Your task to perform on an android device: Open Chrome and go to the settings page Image 0: 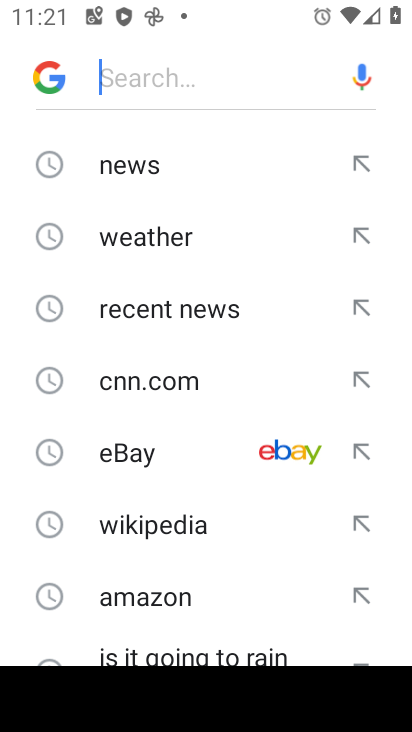
Step 0: press home button
Your task to perform on an android device: Open Chrome and go to the settings page Image 1: 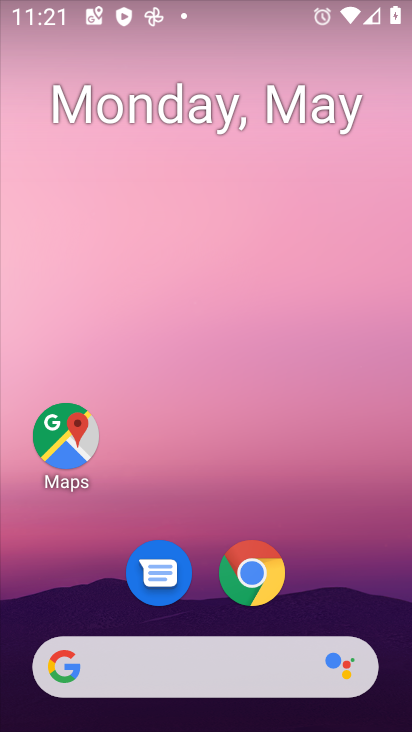
Step 1: click (248, 569)
Your task to perform on an android device: Open Chrome and go to the settings page Image 2: 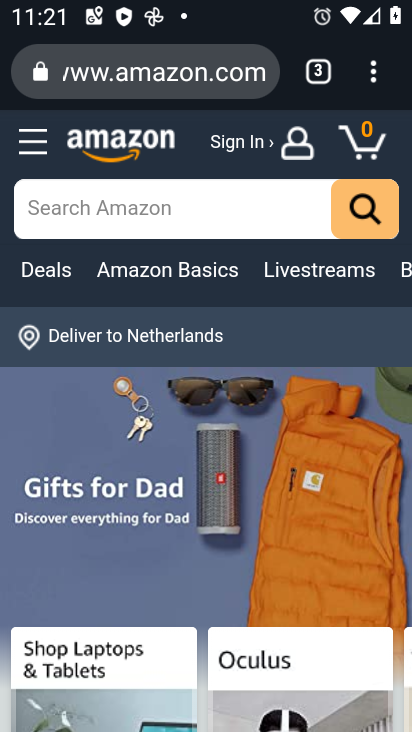
Step 2: click (368, 67)
Your task to perform on an android device: Open Chrome and go to the settings page Image 3: 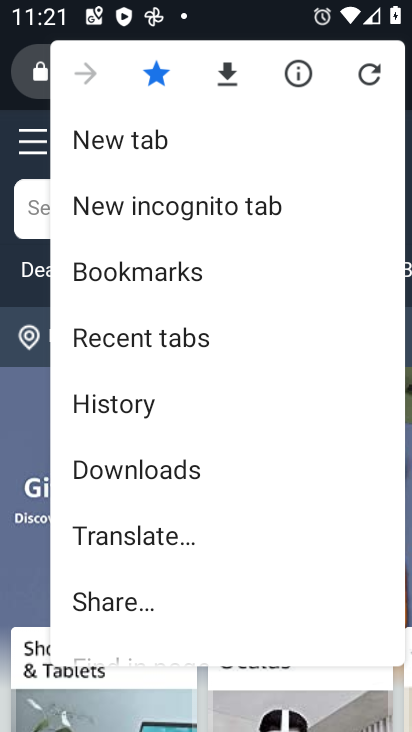
Step 3: drag from (206, 646) to (197, 292)
Your task to perform on an android device: Open Chrome and go to the settings page Image 4: 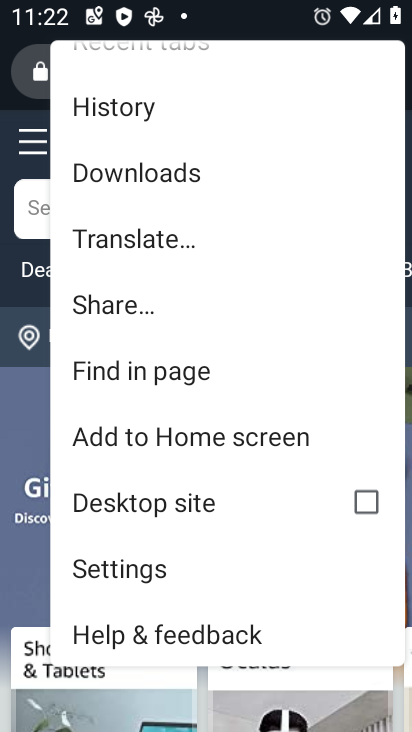
Step 4: click (137, 569)
Your task to perform on an android device: Open Chrome and go to the settings page Image 5: 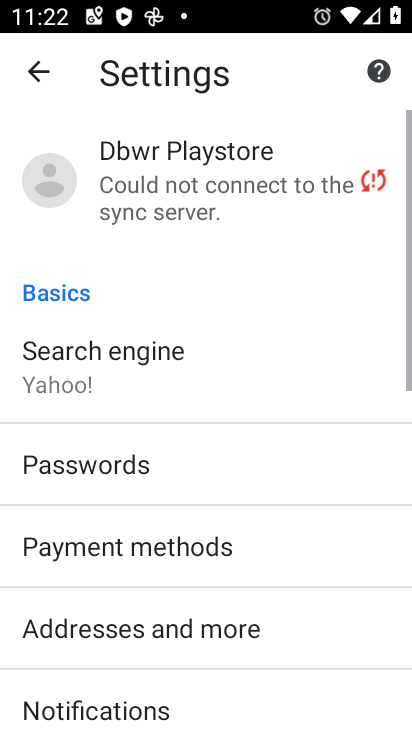
Step 5: task complete